Your task to perform on an android device: turn off location Image 0: 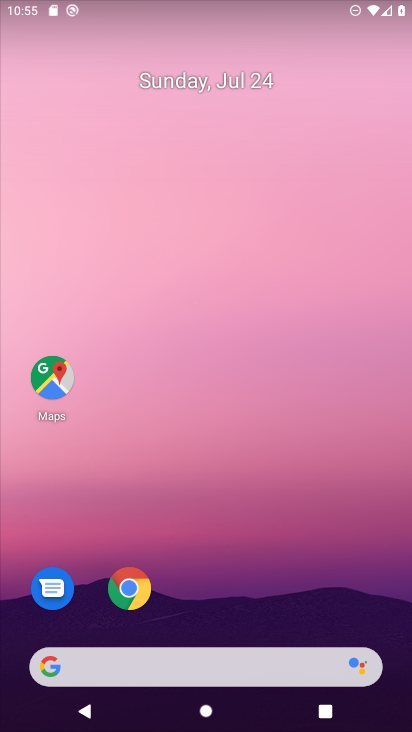
Step 0: drag from (240, 596) to (178, 45)
Your task to perform on an android device: turn off location Image 1: 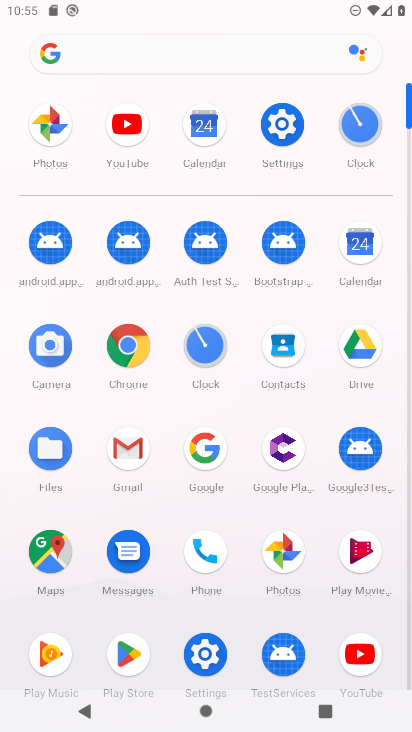
Step 1: click (289, 121)
Your task to perform on an android device: turn off location Image 2: 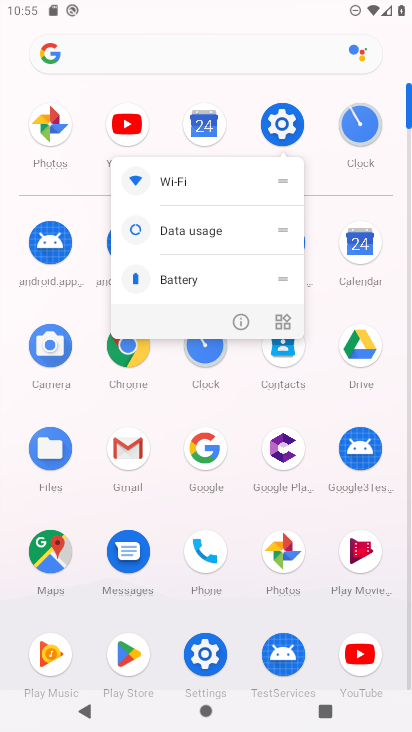
Step 2: click (289, 121)
Your task to perform on an android device: turn off location Image 3: 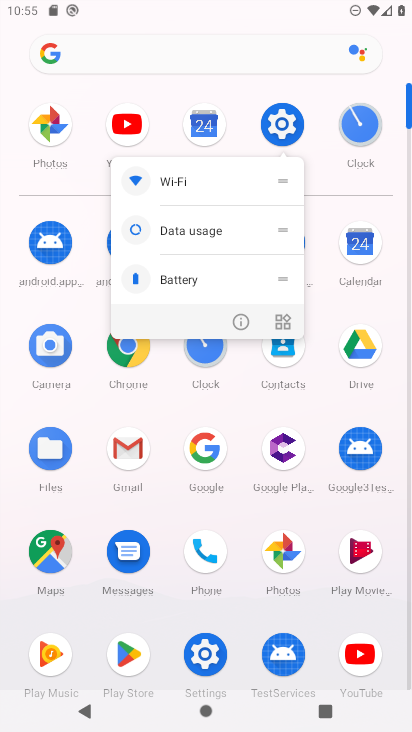
Step 3: click (289, 121)
Your task to perform on an android device: turn off location Image 4: 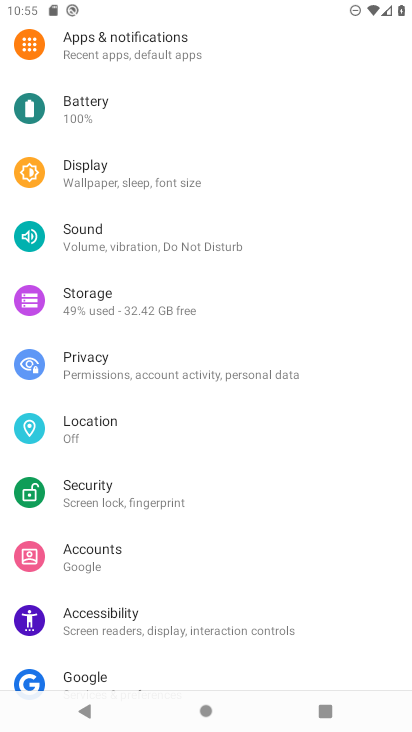
Step 4: click (147, 434)
Your task to perform on an android device: turn off location Image 5: 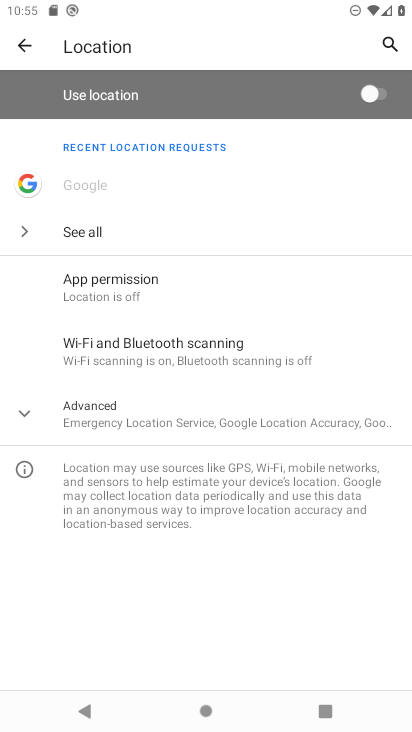
Step 5: task complete